Your task to perform on an android device: What's the weather going to be this weekend? Image 0: 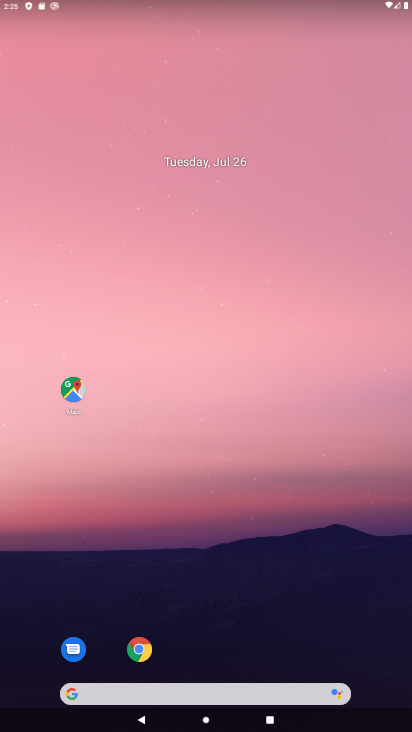
Step 0: click (217, 693)
Your task to perform on an android device: What's the weather going to be this weekend? Image 1: 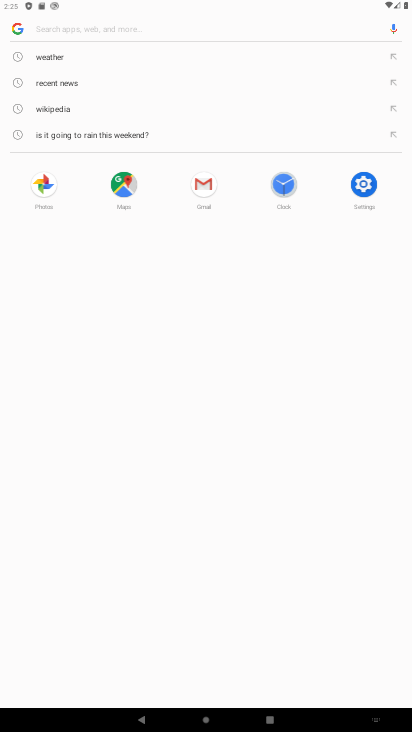
Step 1: click (39, 43)
Your task to perform on an android device: What's the weather going to be this weekend? Image 2: 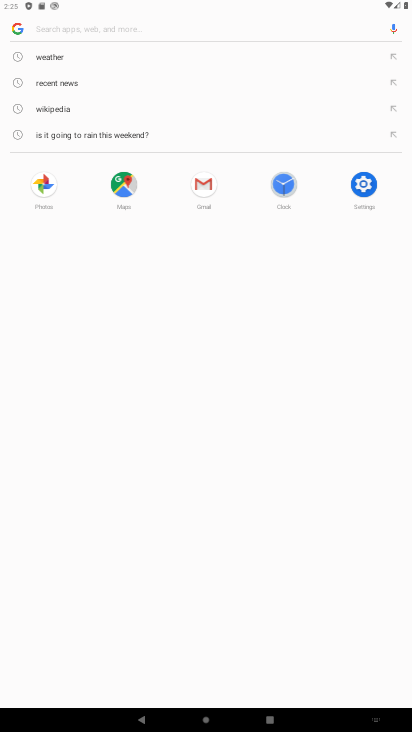
Step 2: click (68, 46)
Your task to perform on an android device: What's the weather going to be this weekend? Image 3: 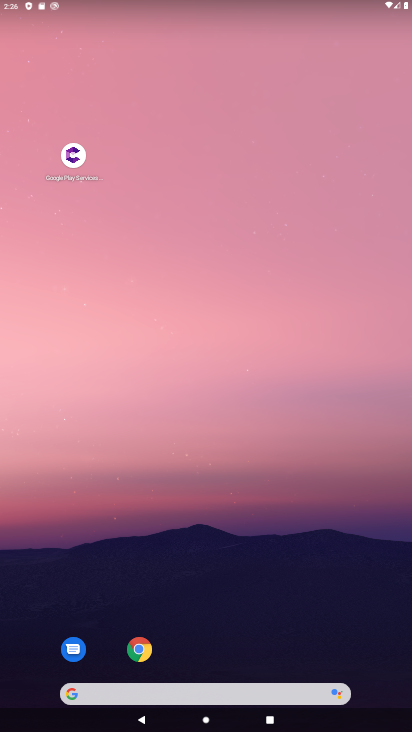
Step 3: click (173, 680)
Your task to perform on an android device: What's the weather going to be this weekend? Image 4: 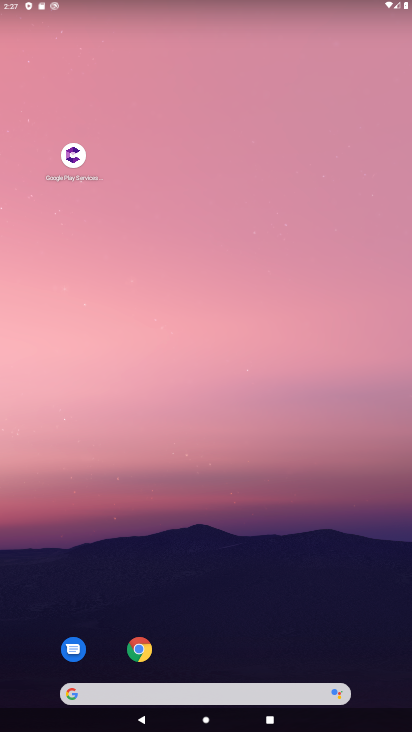
Step 4: click (192, 703)
Your task to perform on an android device: What's the weather going to be this weekend? Image 5: 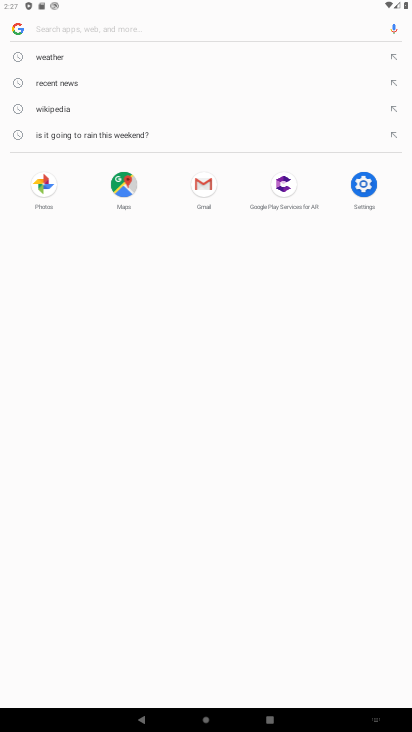
Step 5: click (71, 71)
Your task to perform on an android device: What's the weather going to be this weekend? Image 6: 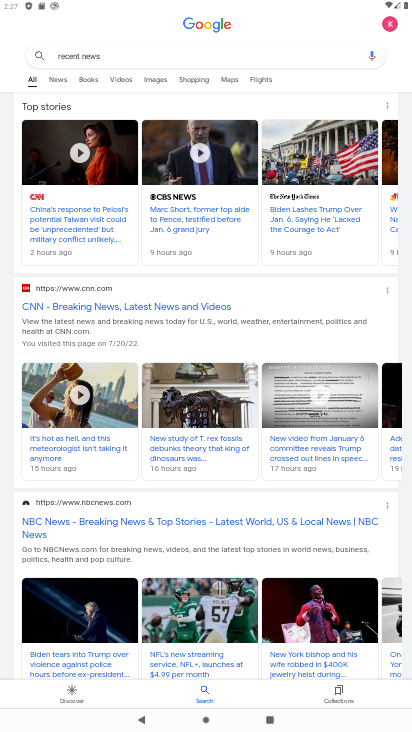
Step 6: click (198, 58)
Your task to perform on an android device: What's the weather going to be this weekend? Image 7: 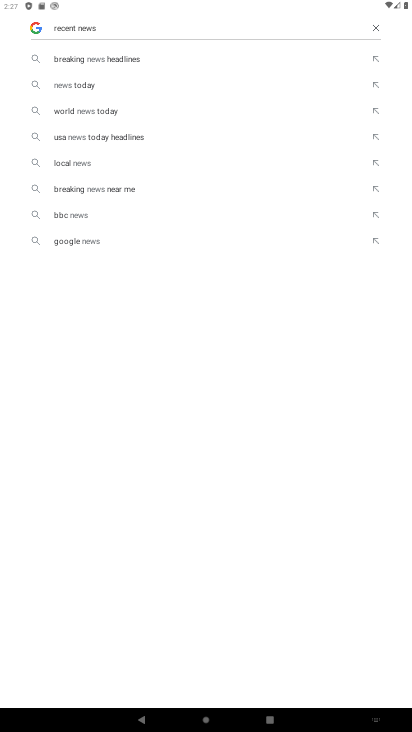
Step 7: click (376, 29)
Your task to perform on an android device: What's the weather going to be this weekend? Image 8: 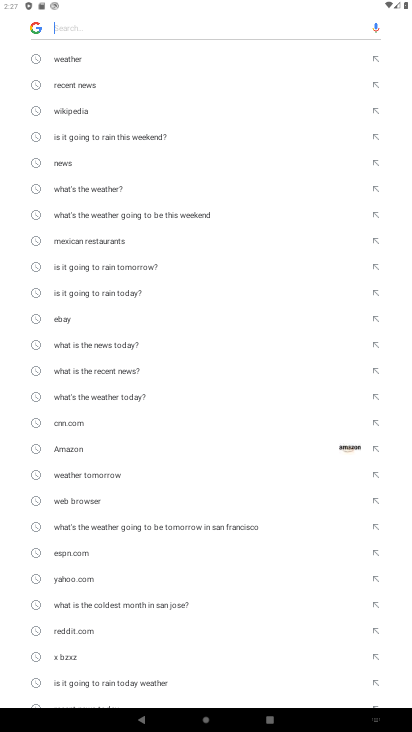
Step 8: click (81, 61)
Your task to perform on an android device: What's the weather going to be this weekend? Image 9: 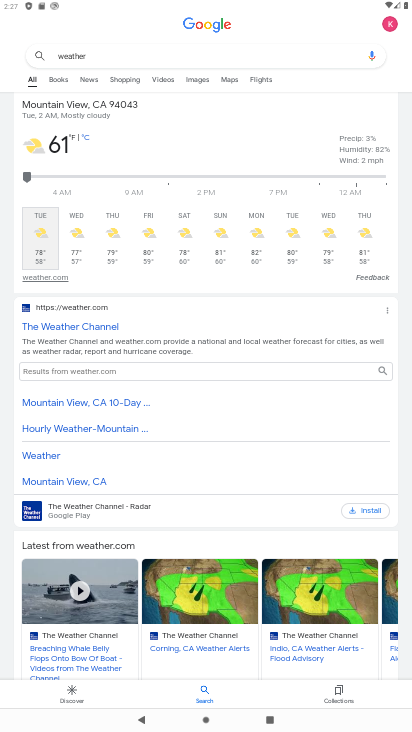
Step 9: click (180, 240)
Your task to perform on an android device: What's the weather going to be this weekend? Image 10: 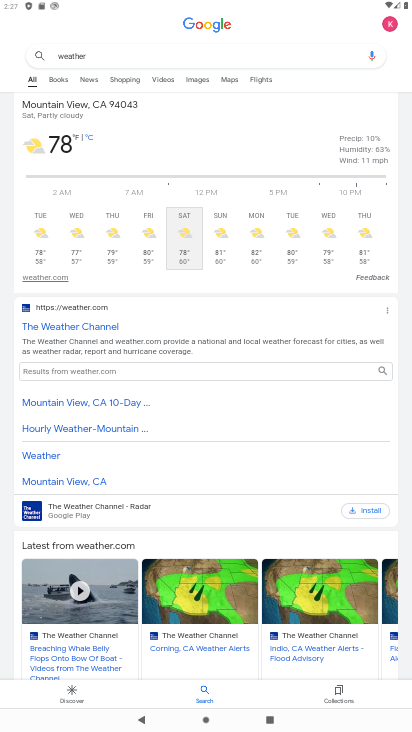
Step 10: task complete